Your task to perform on an android device: Check the news Image 0: 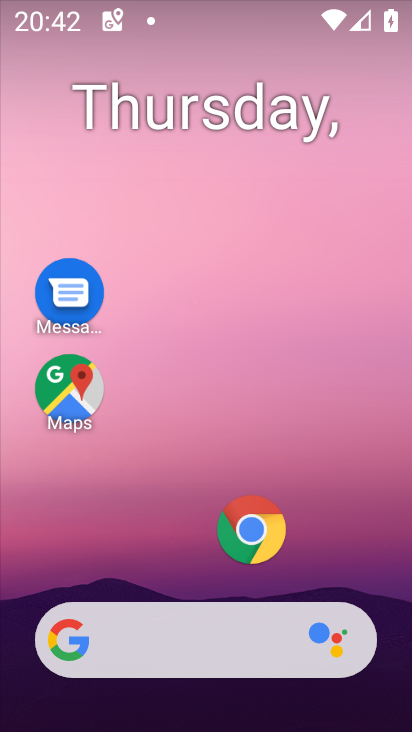
Step 0: click (178, 637)
Your task to perform on an android device: Check the news Image 1: 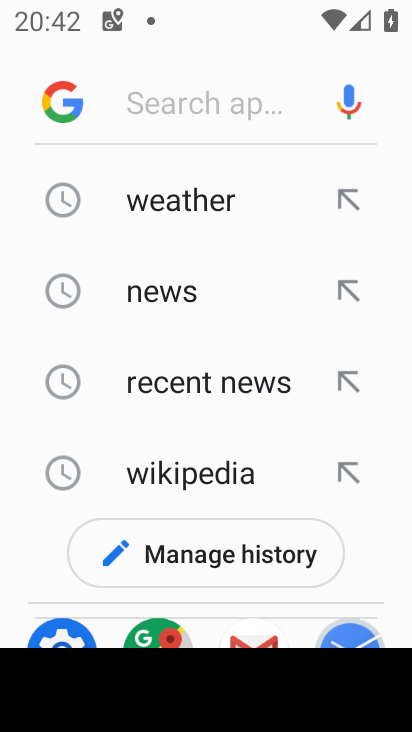
Step 1: click (188, 291)
Your task to perform on an android device: Check the news Image 2: 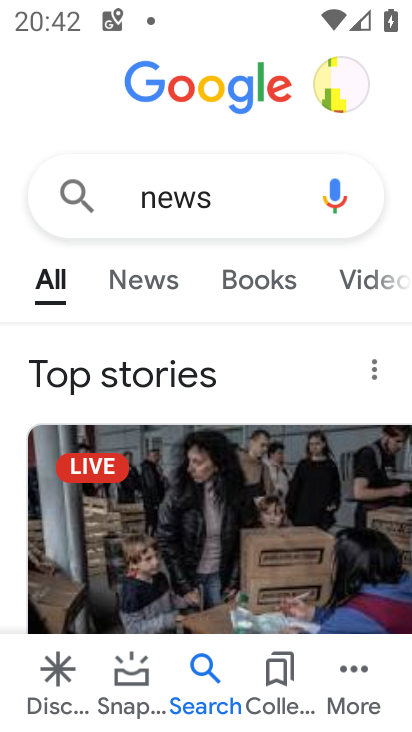
Step 2: task complete